Your task to perform on an android device: Is it going to rain today? Image 0: 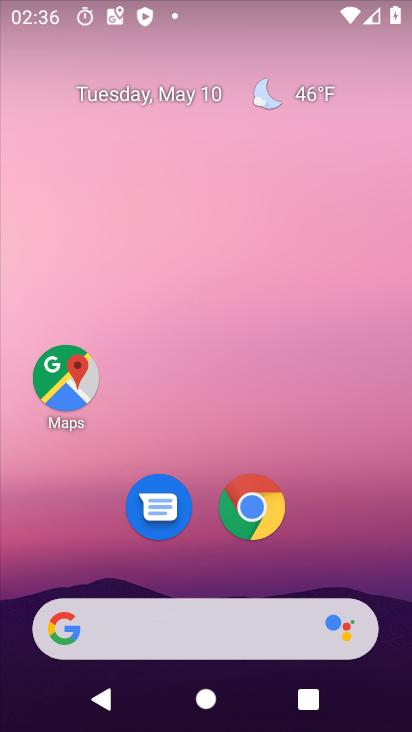
Step 0: drag from (271, 668) to (329, 190)
Your task to perform on an android device: Is it going to rain today? Image 1: 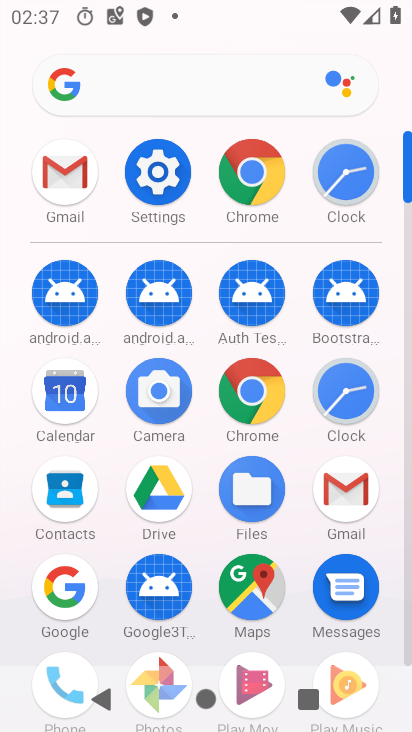
Step 1: click (181, 100)
Your task to perform on an android device: Is it going to rain today? Image 2: 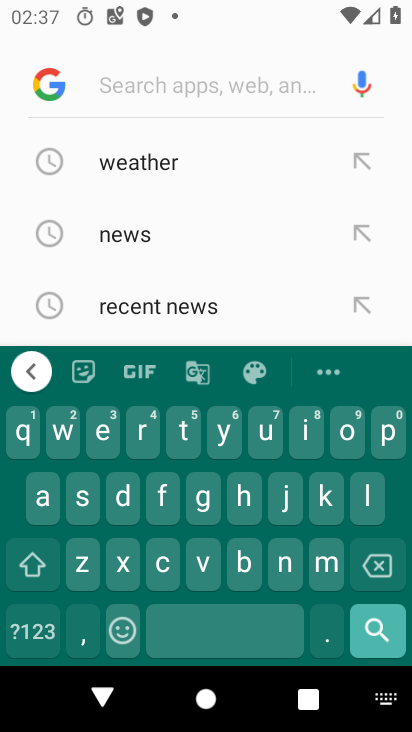
Step 2: click (162, 166)
Your task to perform on an android device: Is it going to rain today? Image 3: 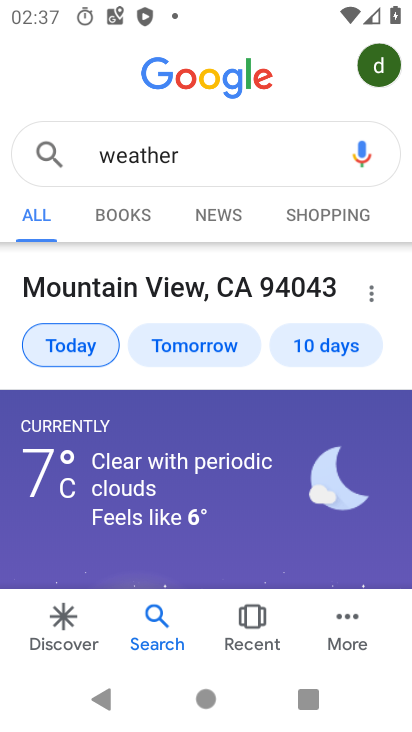
Step 3: click (58, 340)
Your task to perform on an android device: Is it going to rain today? Image 4: 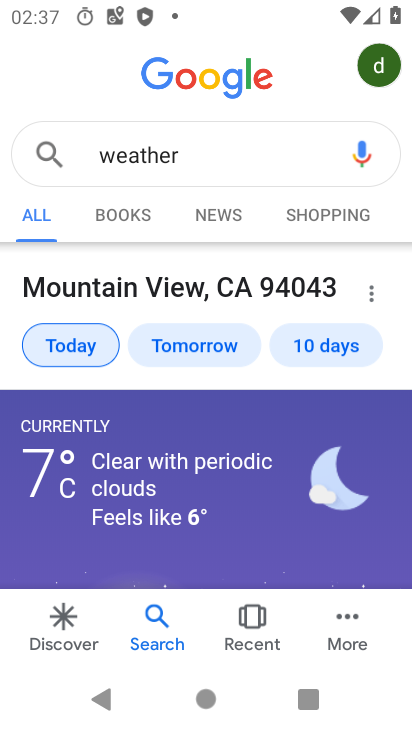
Step 4: task complete